Your task to perform on an android device: Open Google Chrome and open the bookmarks view Image 0: 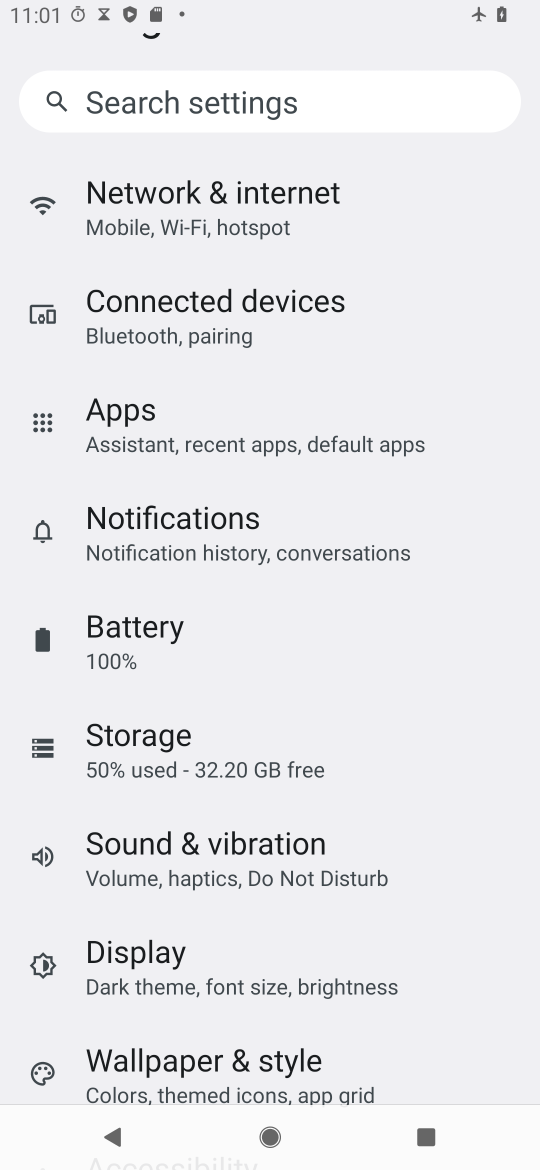
Step 0: press home button
Your task to perform on an android device: Open Google Chrome and open the bookmarks view Image 1: 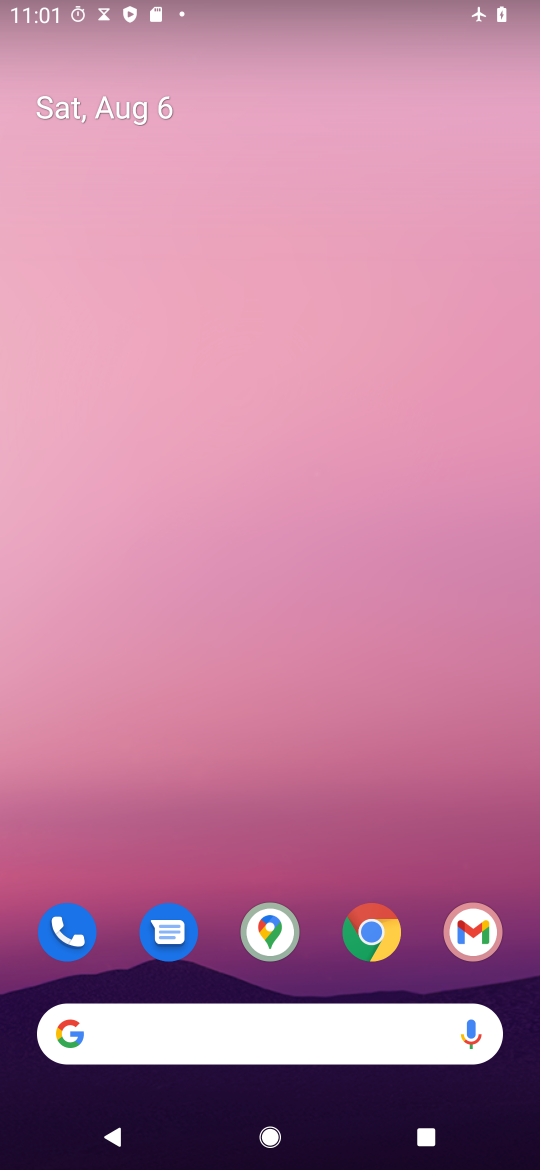
Step 1: click (371, 933)
Your task to perform on an android device: Open Google Chrome and open the bookmarks view Image 2: 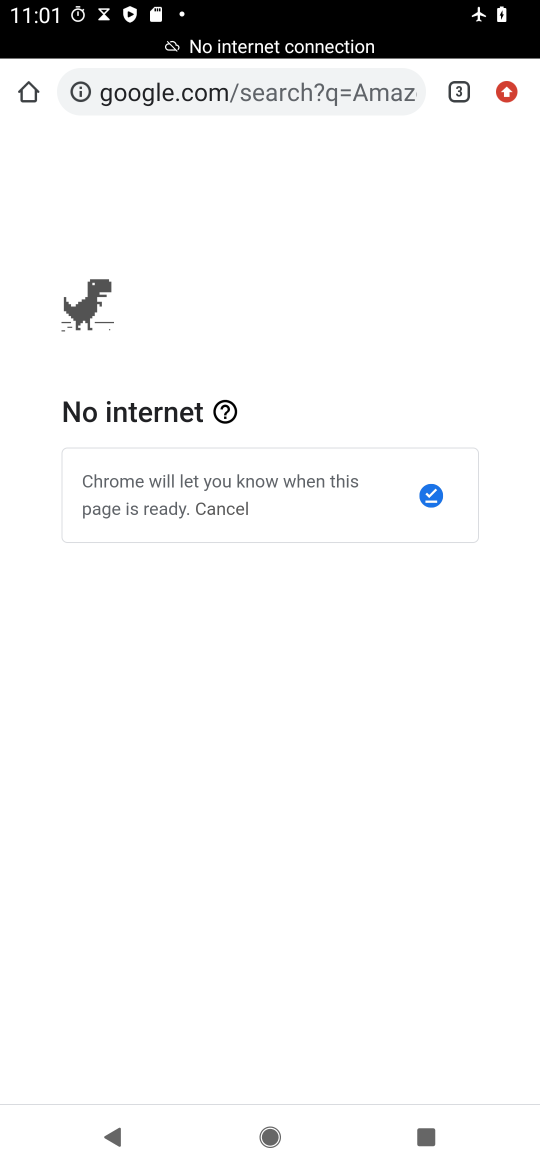
Step 2: click (500, 89)
Your task to perform on an android device: Open Google Chrome and open the bookmarks view Image 3: 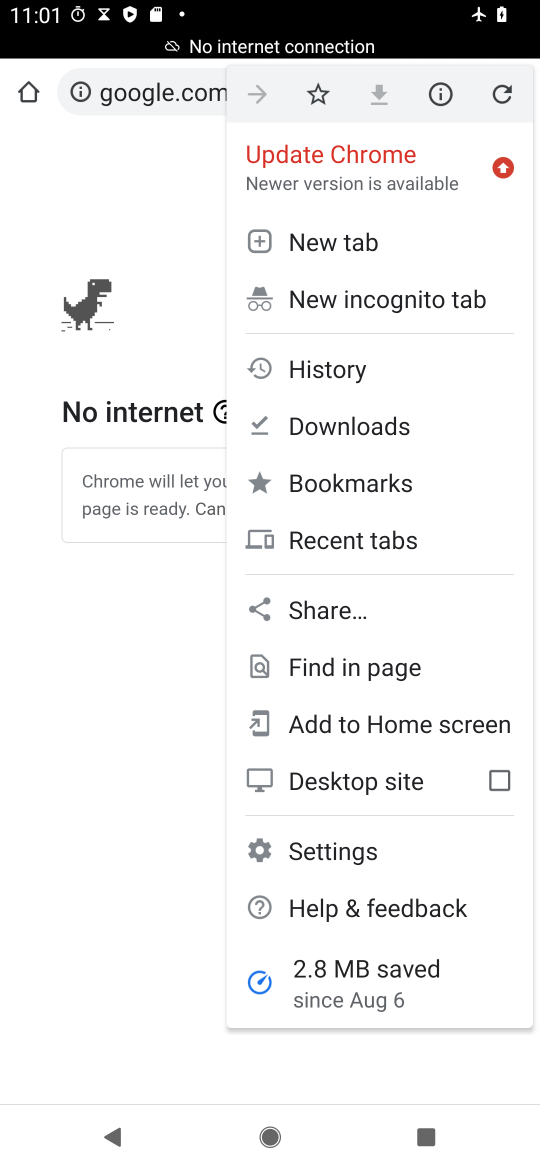
Step 3: click (348, 482)
Your task to perform on an android device: Open Google Chrome and open the bookmarks view Image 4: 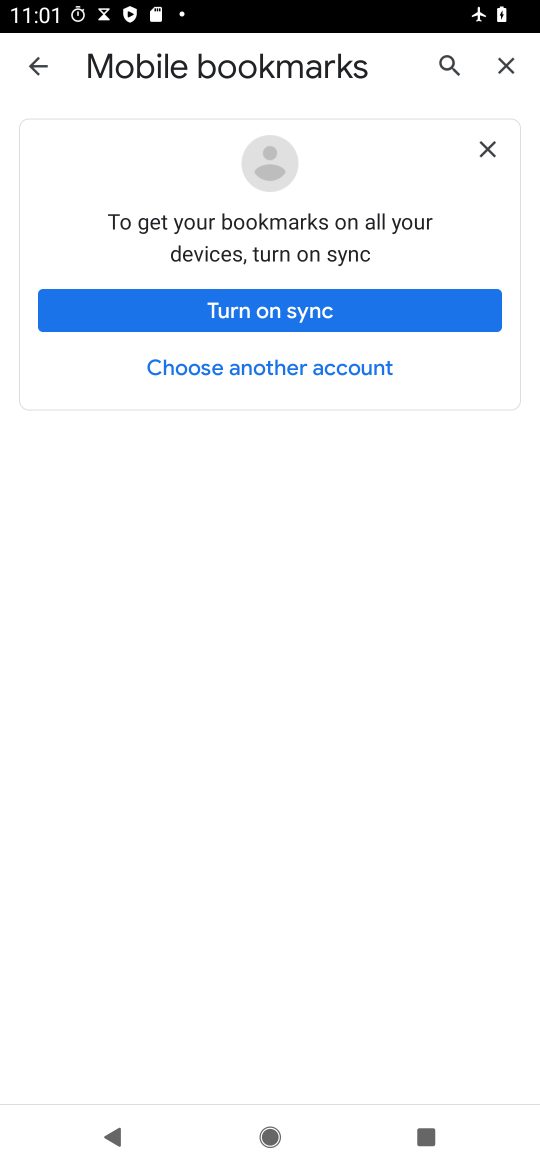
Step 4: task complete